Your task to perform on an android device: Go to battery settings Image 0: 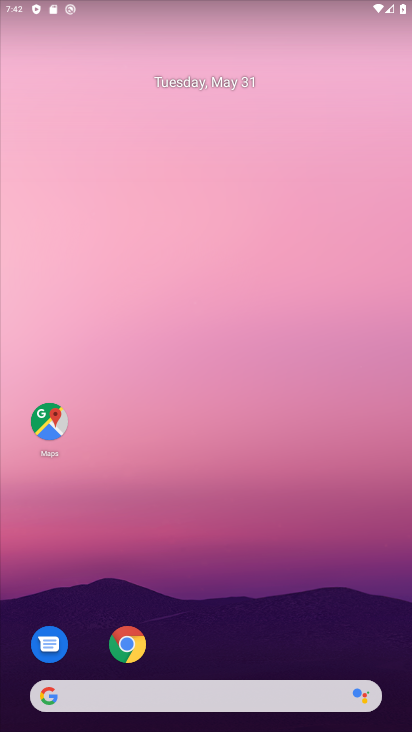
Step 0: drag from (175, 727) to (389, 0)
Your task to perform on an android device: Go to battery settings Image 1: 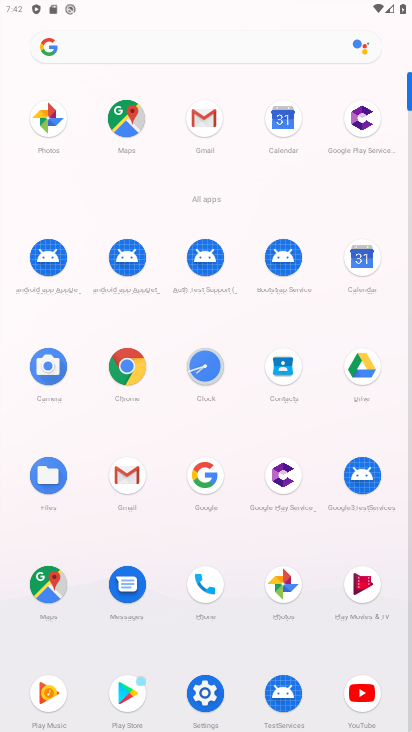
Step 1: click (214, 682)
Your task to perform on an android device: Go to battery settings Image 2: 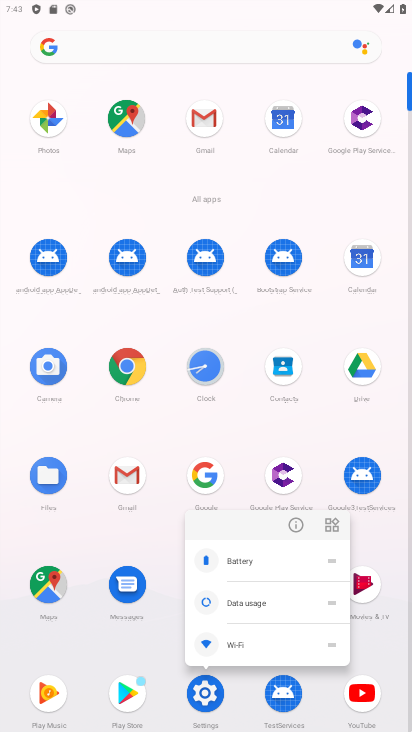
Step 2: click (199, 685)
Your task to perform on an android device: Go to battery settings Image 3: 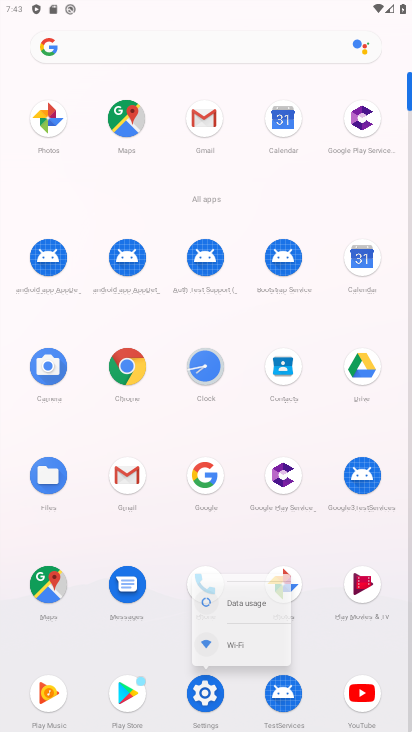
Step 3: click (199, 685)
Your task to perform on an android device: Go to battery settings Image 4: 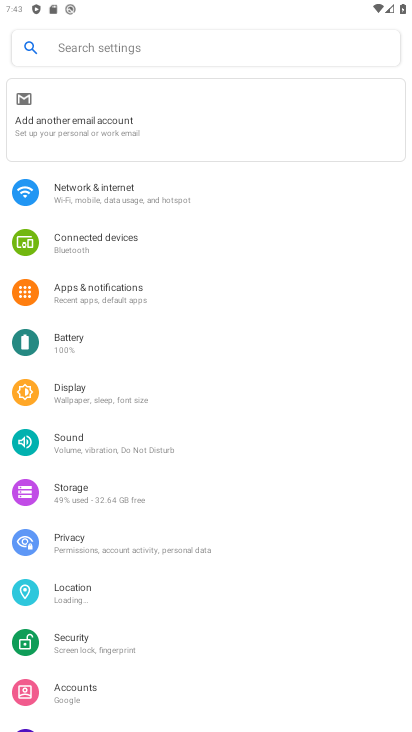
Step 4: click (80, 339)
Your task to perform on an android device: Go to battery settings Image 5: 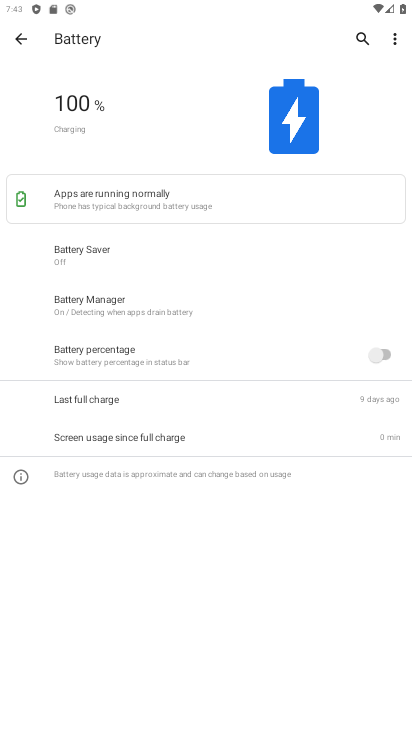
Step 5: task complete